Your task to perform on an android device: turn off wifi Image 0: 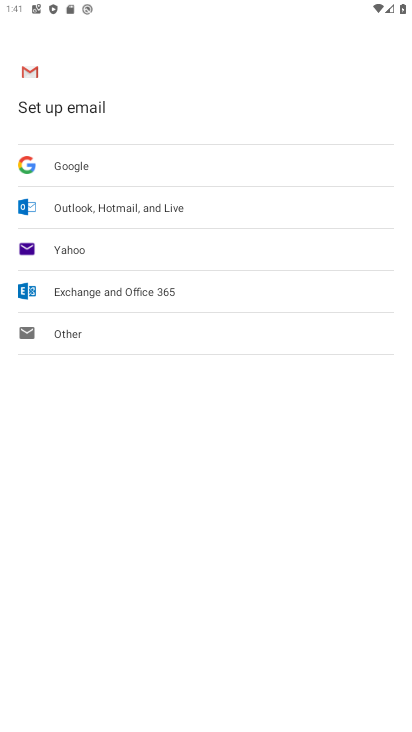
Step 0: press home button
Your task to perform on an android device: turn off wifi Image 1: 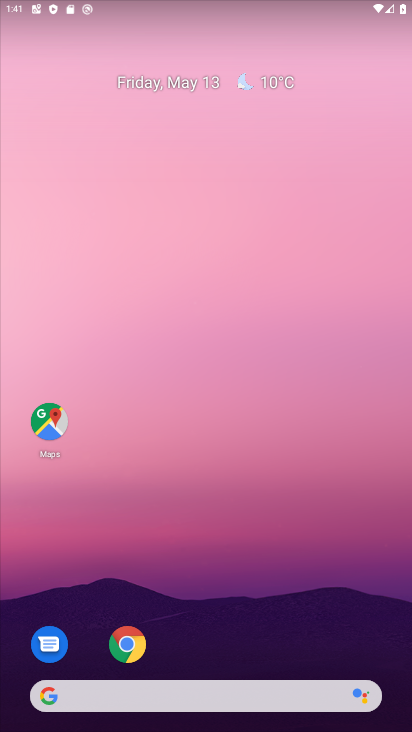
Step 1: drag from (281, 2) to (147, 731)
Your task to perform on an android device: turn off wifi Image 2: 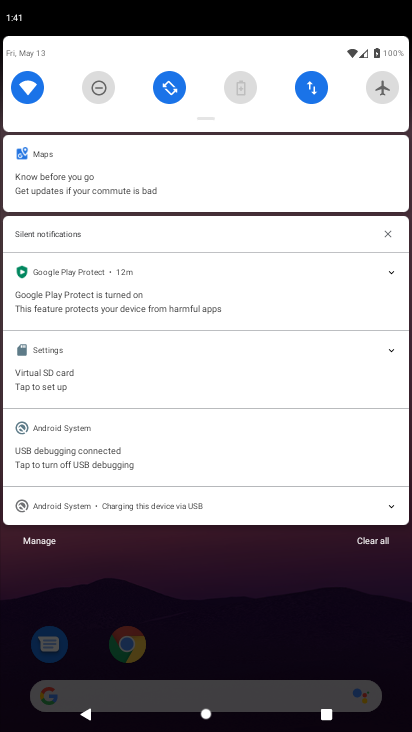
Step 2: drag from (308, 653) to (408, 355)
Your task to perform on an android device: turn off wifi Image 3: 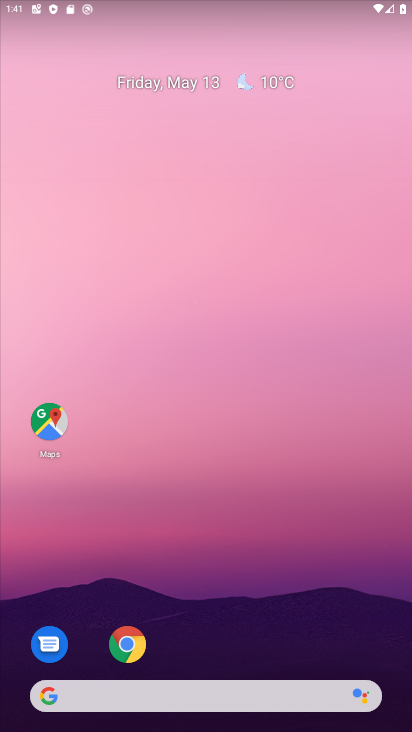
Step 3: drag from (180, 639) to (217, 9)
Your task to perform on an android device: turn off wifi Image 4: 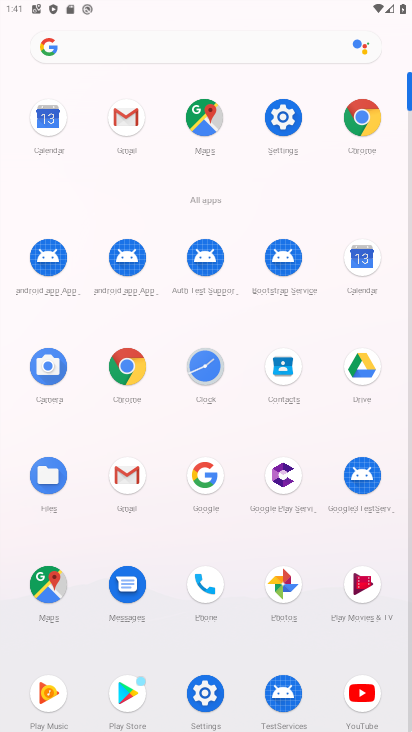
Step 4: click (280, 113)
Your task to perform on an android device: turn off wifi Image 5: 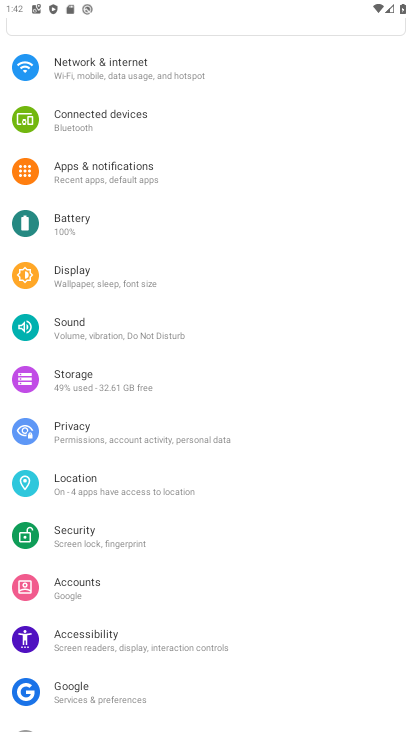
Step 5: click (169, 66)
Your task to perform on an android device: turn off wifi Image 6: 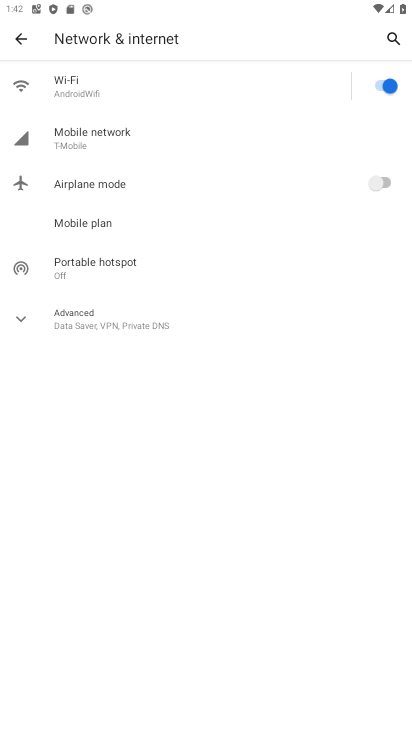
Step 6: click (378, 83)
Your task to perform on an android device: turn off wifi Image 7: 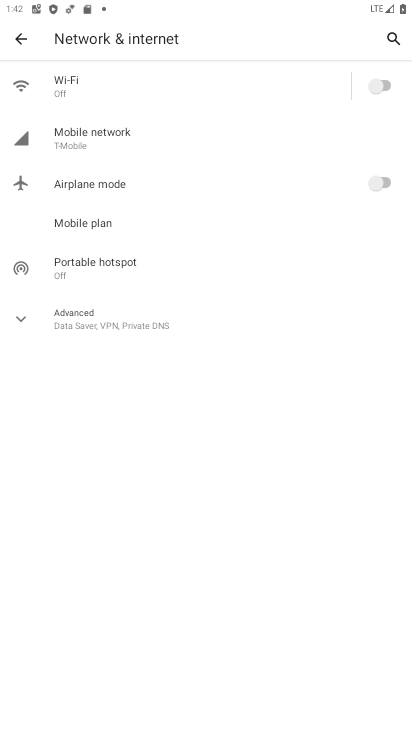
Step 7: task complete